Your task to perform on an android device: change the clock style Image 0: 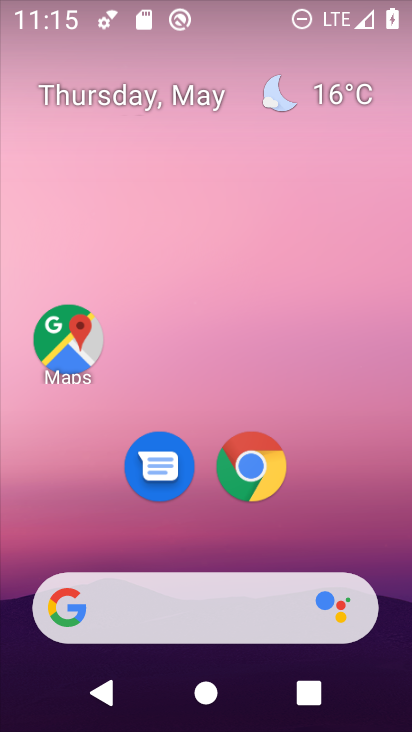
Step 0: drag from (290, 527) to (366, 158)
Your task to perform on an android device: change the clock style Image 1: 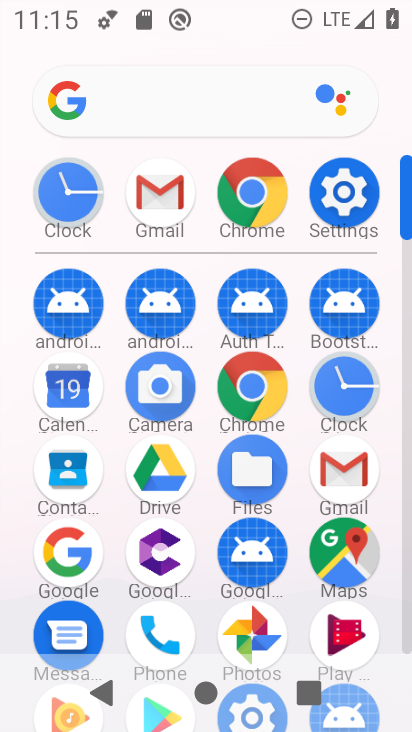
Step 1: click (331, 386)
Your task to perform on an android device: change the clock style Image 2: 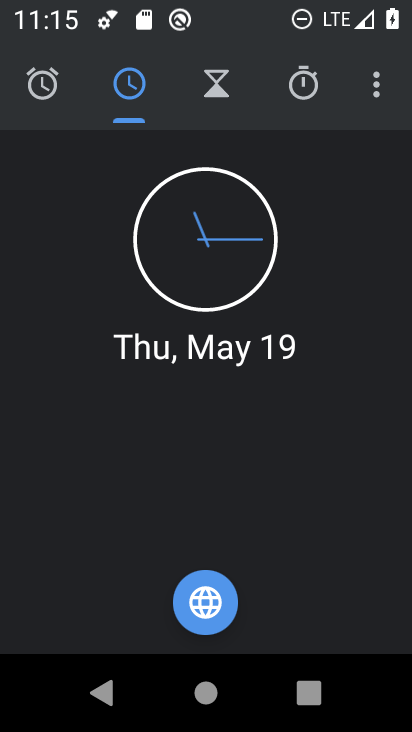
Step 2: click (367, 93)
Your task to perform on an android device: change the clock style Image 3: 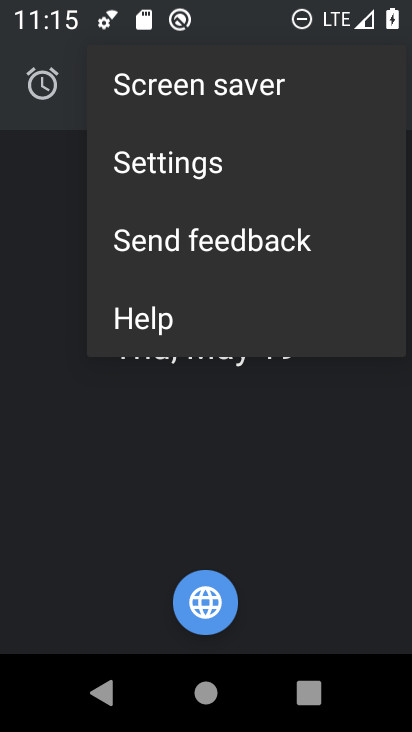
Step 3: click (170, 173)
Your task to perform on an android device: change the clock style Image 4: 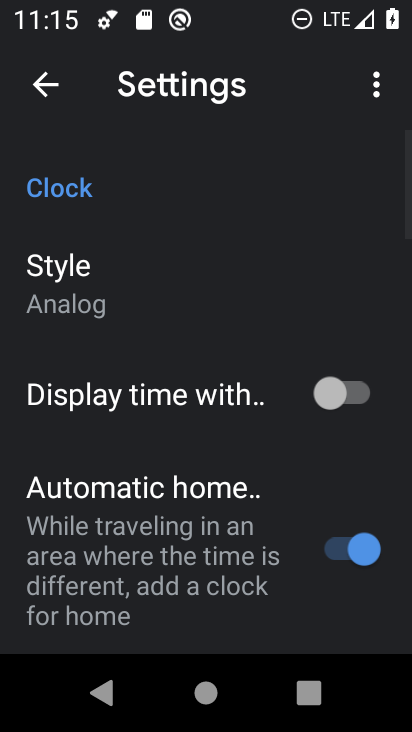
Step 4: drag from (158, 457) to (233, 206)
Your task to perform on an android device: change the clock style Image 5: 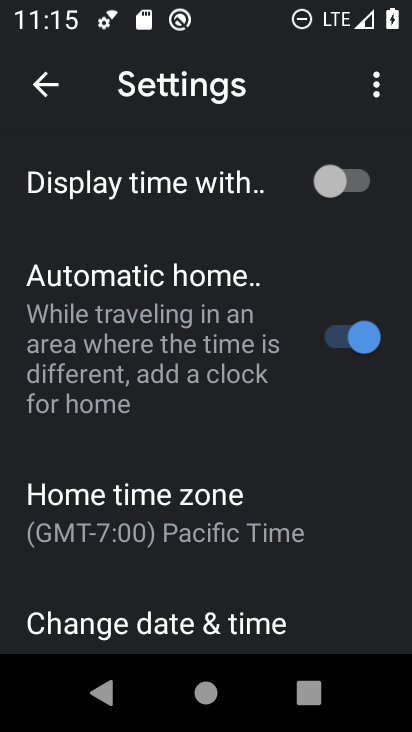
Step 5: drag from (201, 252) to (142, 567)
Your task to perform on an android device: change the clock style Image 6: 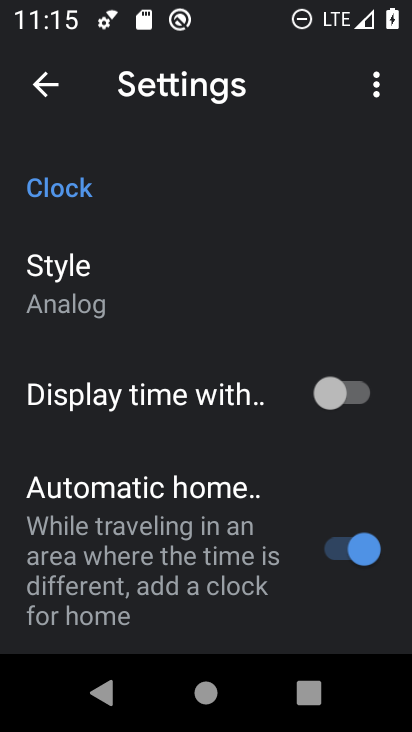
Step 6: click (73, 287)
Your task to perform on an android device: change the clock style Image 7: 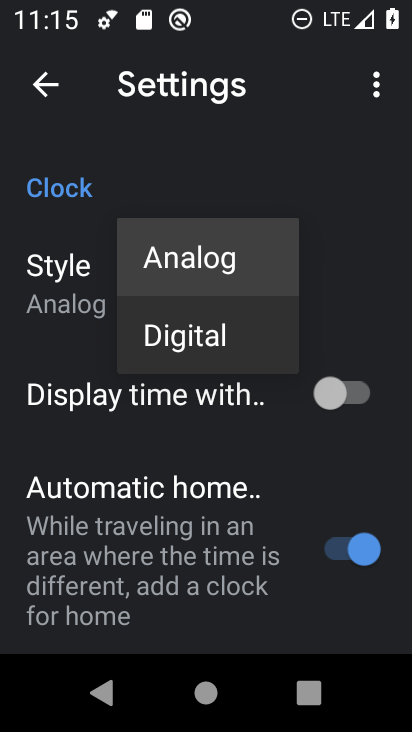
Step 7: click (175, 338)
Your task to perform on an android device: change the clock style Image 8: 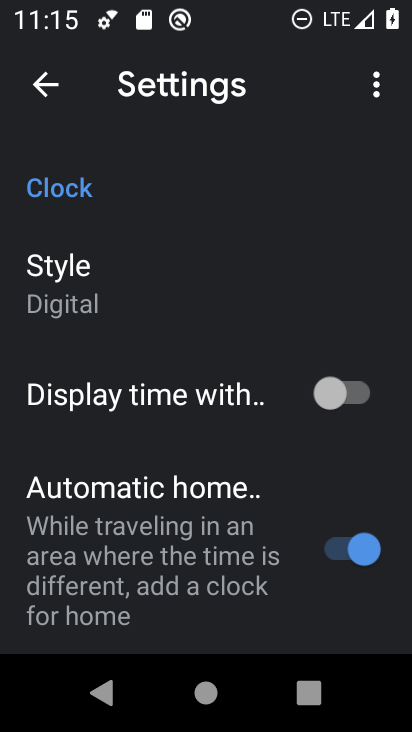
Step 8: task complete